Your task to perform on an android device: Open maps Image 0: 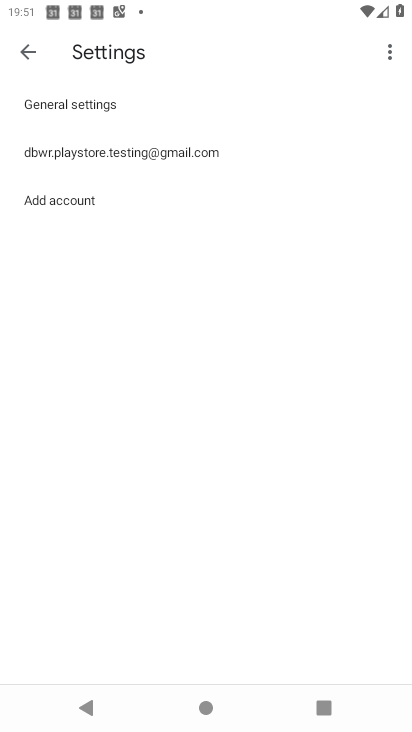
Step 0: drag from (265, 641) to (161, 270)
Your task to perform on an android device: Open maps Image 1: 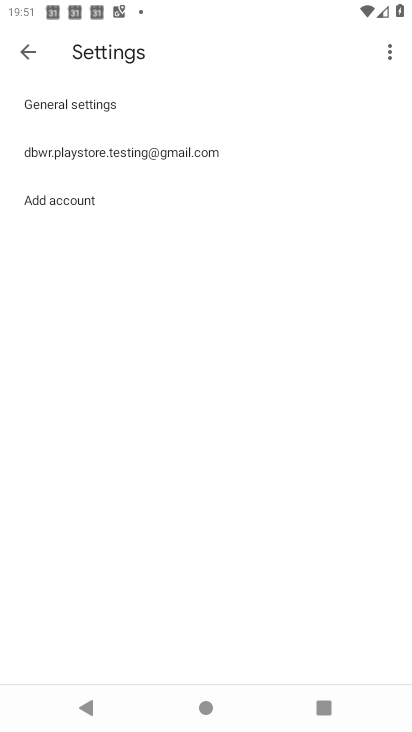
Step 1: press home button
Your task to perform on an android device: Open maps Image 2: 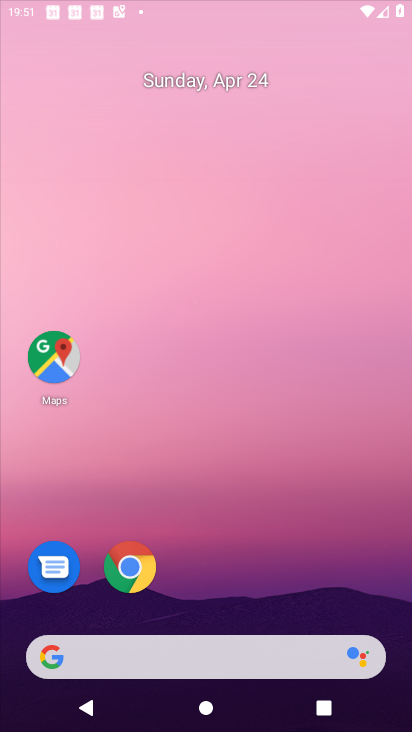
Step 2: drag from (257, 690) to (204, 212)
Your task to perform on an android device: Open maps Image 3: 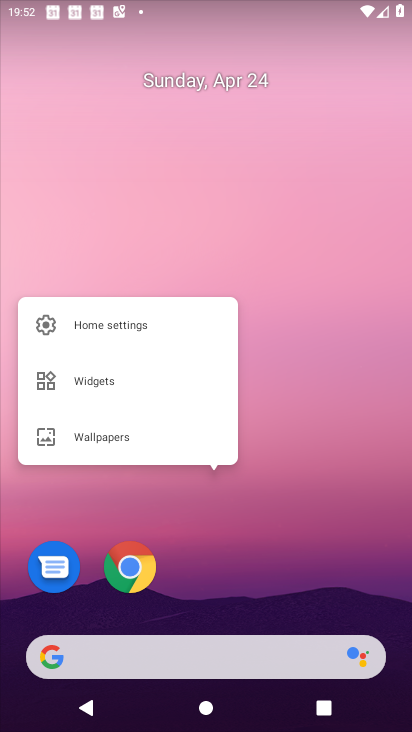
Step 3: drag from (277, 687) to (193, 159)
Your task to perform on an android device: Open maps Image 4: 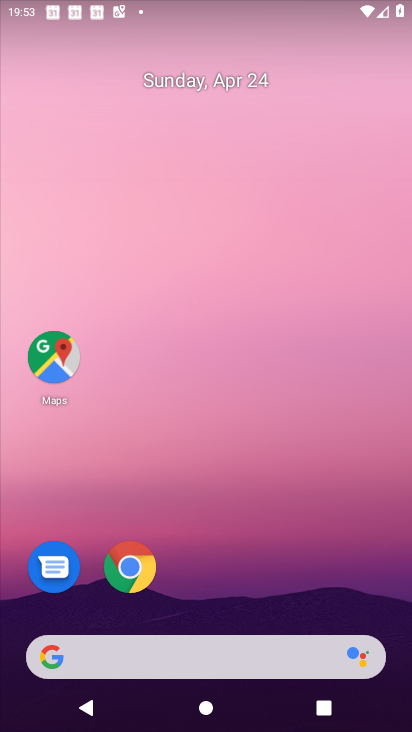
Step 4: drag from (270, 625) to (204, 199)
Your task to perform on an android device: Open maps Image 5: 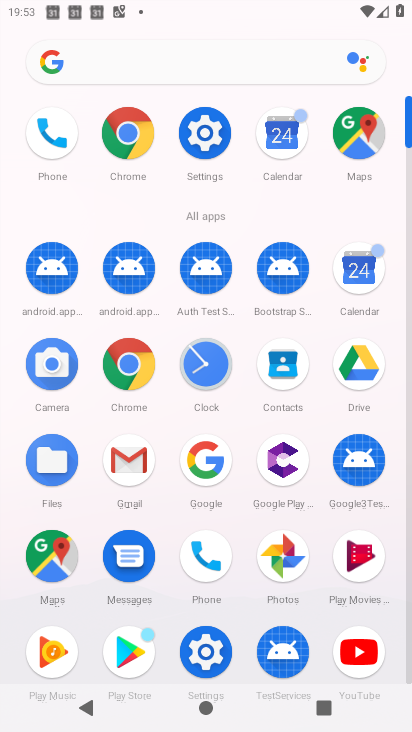
Step 5: click (369, 146)
Your task to perform on an android device: Open maps Image 6: 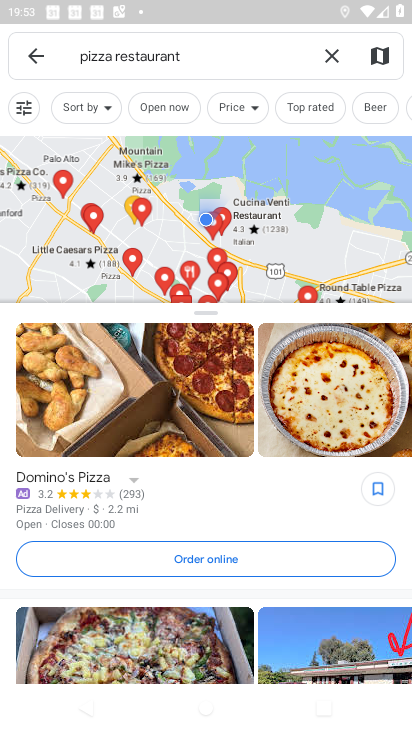
Step 6: click (328, 229)
Your task to perform on an android device: Open maps Image 7: 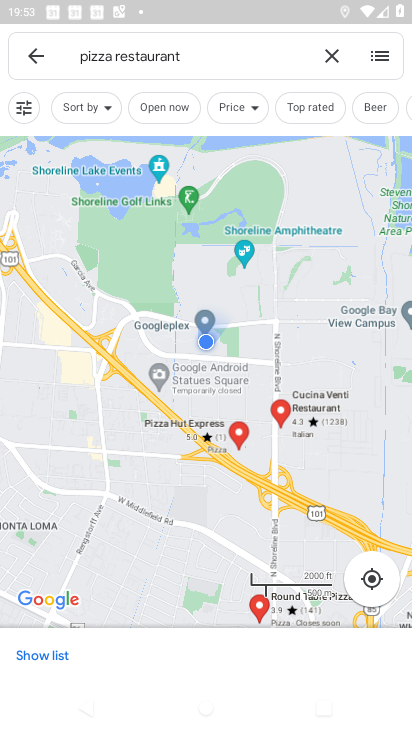
Step 7: task complete